Your task to perform on an android device: move an email to a new category in the gmail app Image 0: 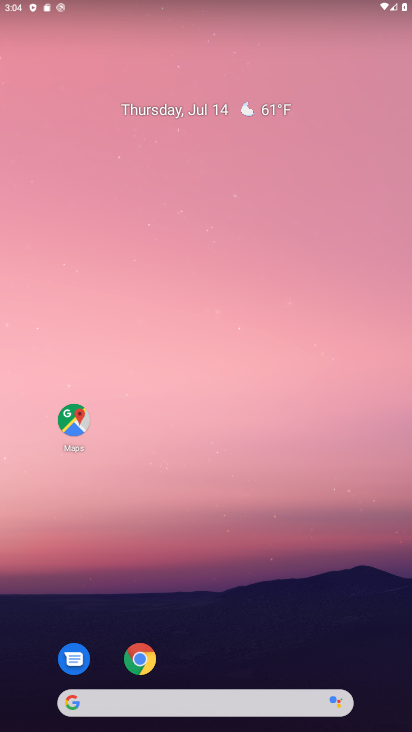
Step 0: drag from (207, 699) to (289, 154)
Your task to perform on an android device: move an email to a new category in the gmail app Image 1: 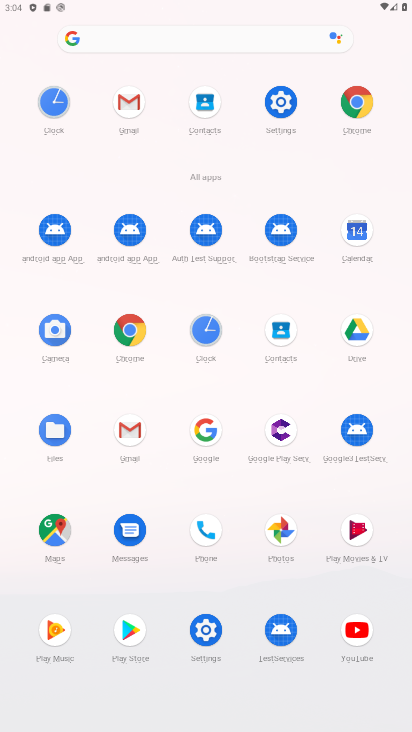
Step 1: click (129, 100)
Your task to perform on an android device: move an email to a new category in the gmail app Image 2: 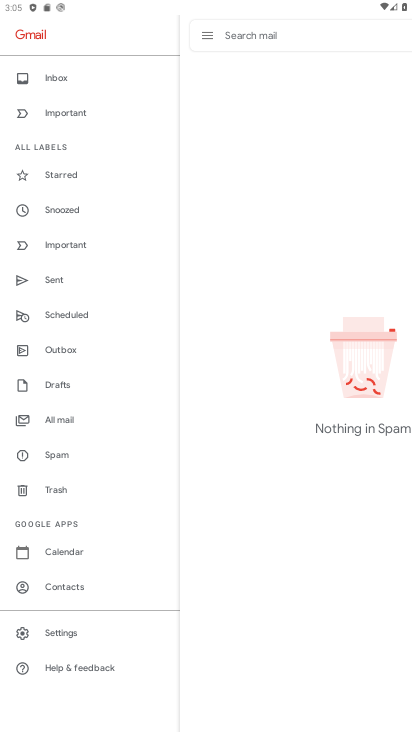
Step 2: click (67, 80)
Your task to perform on an android device: move an email to a new category in the gmail app Image 3: 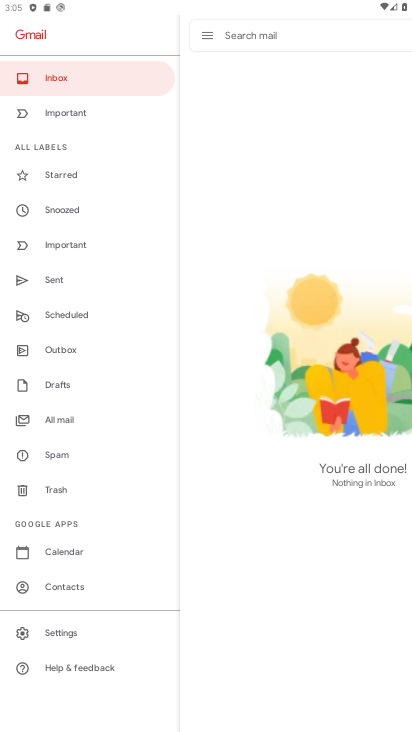
Step 3: click (77, 111)
Your task to perform on an android device: move an email to a new category in the gmail app Image 4: 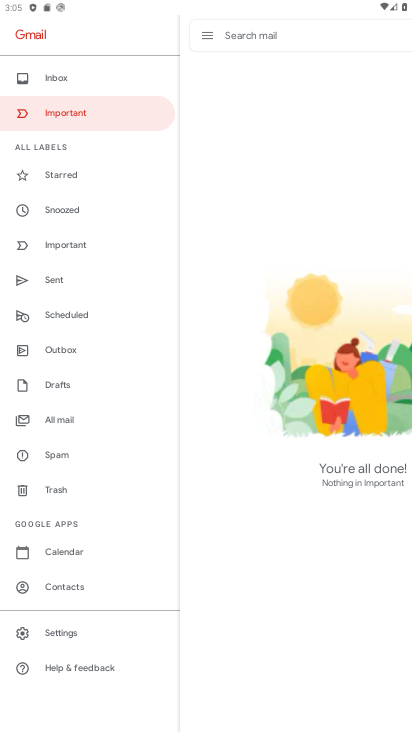
Step 4: click (59, 174)
Your task to perform on an android device: move an email to a new category in the gmail app Image 5: 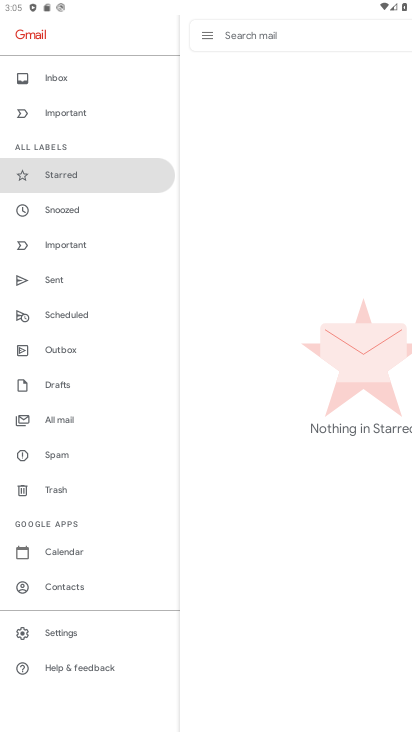
Step 5: click (47, 214)
Your task to perform on an android device: move an email to a new category in the gmail app Image 6: 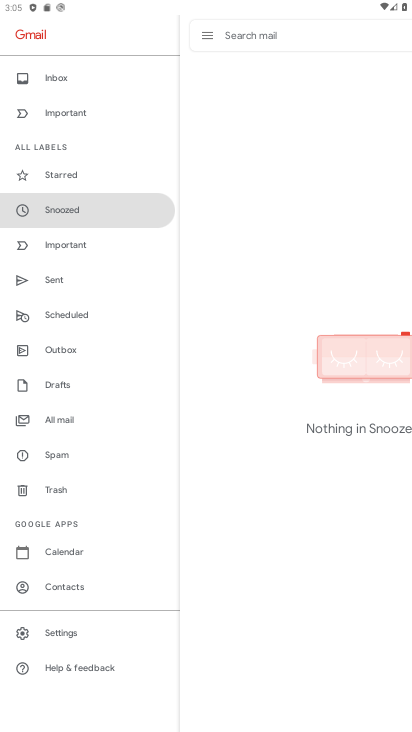
Step 6: click (49, 245)
Your task to perform on an android device: move an email to a new category in the gmail app Image 7: 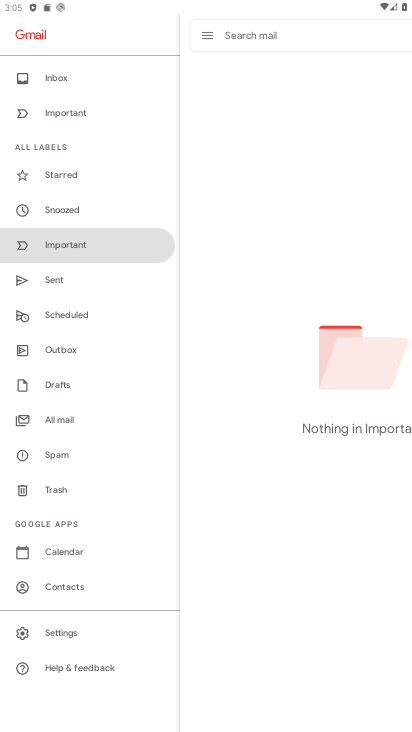
Step 7: click (53, 282)
Your task to perform on an android device: move an email to a new category in the gmail app Image 8: 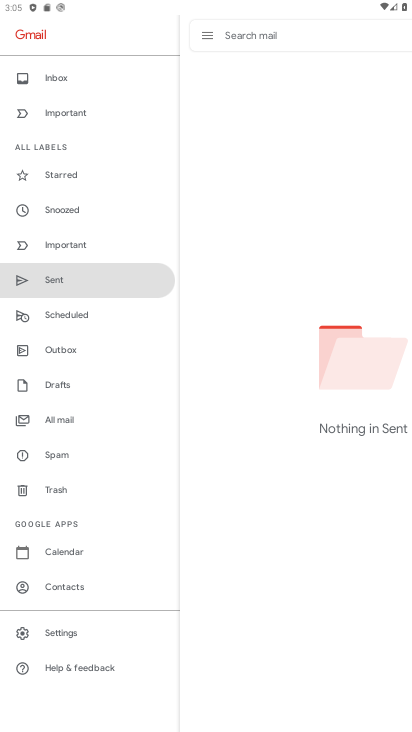
Step 8: click (57, 311)
Your task to perform on an android device: move an email to a new category in the gmail app Image 9: 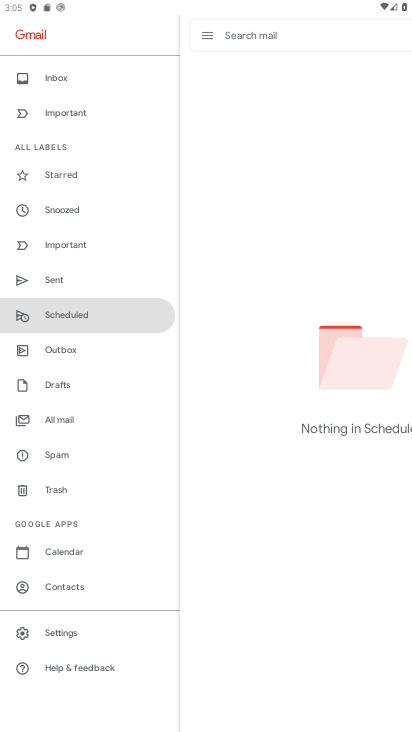
Step 9: click (62, 353)
Your task to perform on an android device: move an email to a new category in the gmail app Image 10: 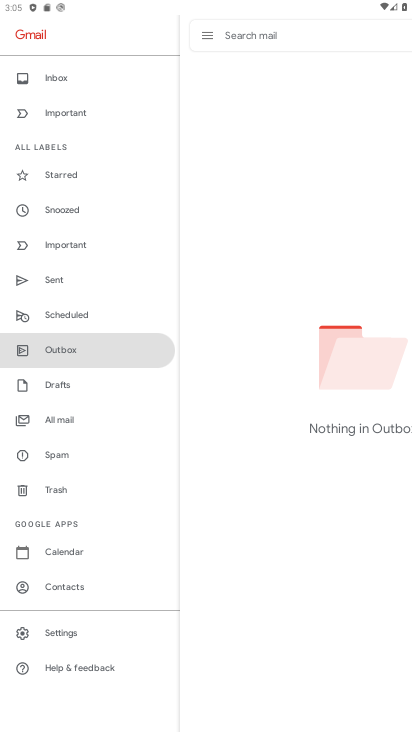
Step 10: click (53, 378)
Your task to perform on an android device: move an email to a new category in the gmail app Image 11: 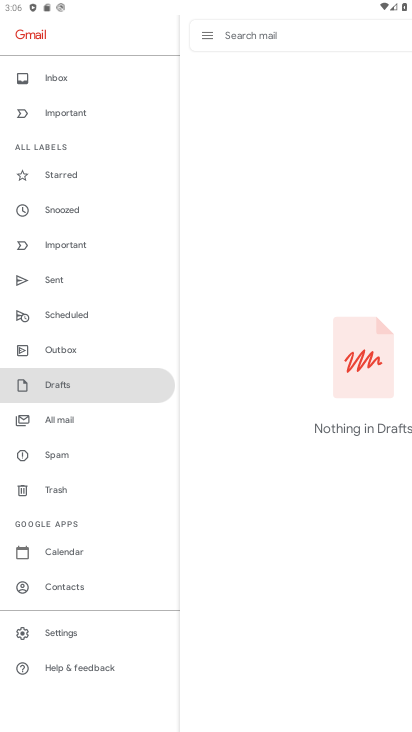
Step 11: click (62, 423)
Your task to perform on an android device: move an email to a new category in the gmail app Image 12: 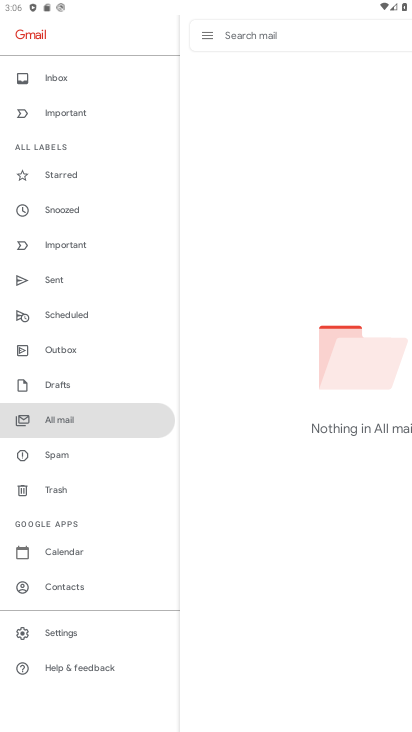
Step 12: click (42, 458)
Your task to perform on an android device: move an email to a new category in the gmail app Image 13: 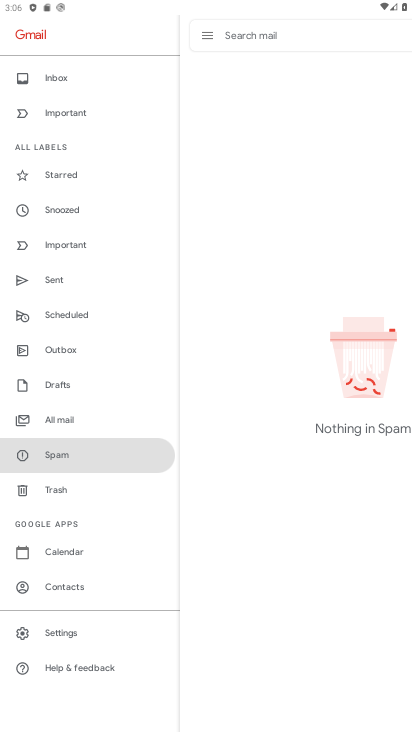
Step 13: click (48, 488)
Your task to perform on an android device: move an email to a new category in the gmail app Image 14: 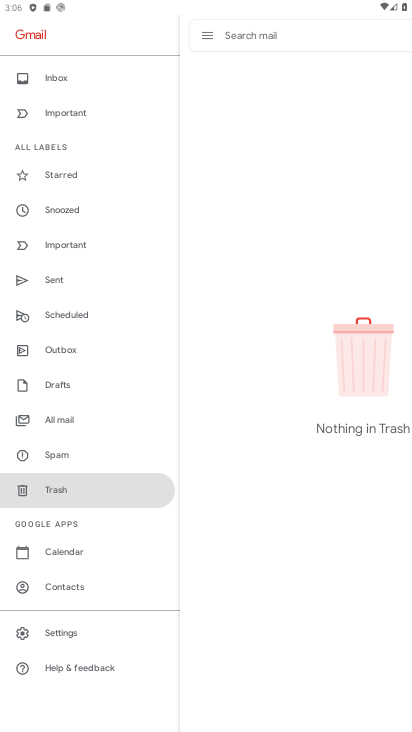
Step 14: task complete